Your task to perform on an android device: Open Yahoo.com Image 0: 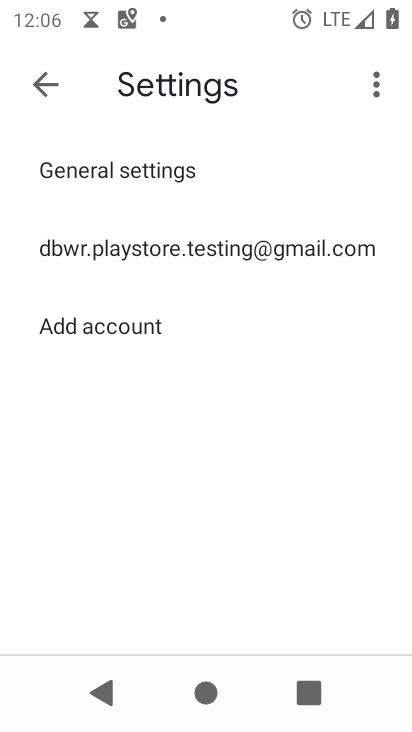
Step 0: press home button
Your task to perform on an android device: Open Yahoo.com Image 1: 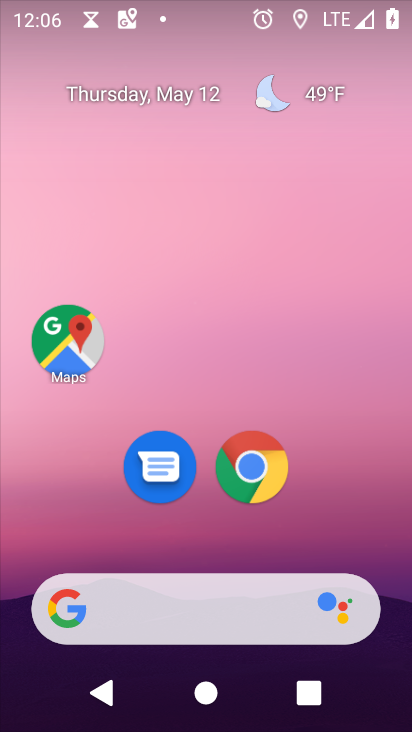
Step 1: click (247, 474)
Your task to perform on an android device: Open Yahoo.com Image 2: 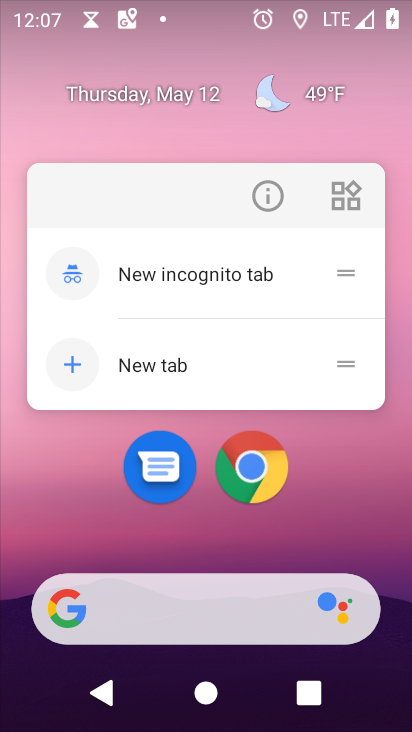
Step 2: click (246, 467)
Your task to perform on an android device: Open Yahoo.com Image 3: 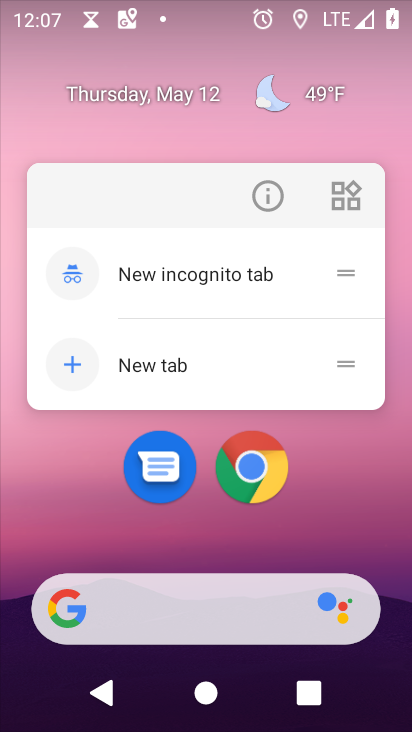
Step 3: click (266, 485)
Your task to perform on an android device: Open Yahoo.com Image 4: 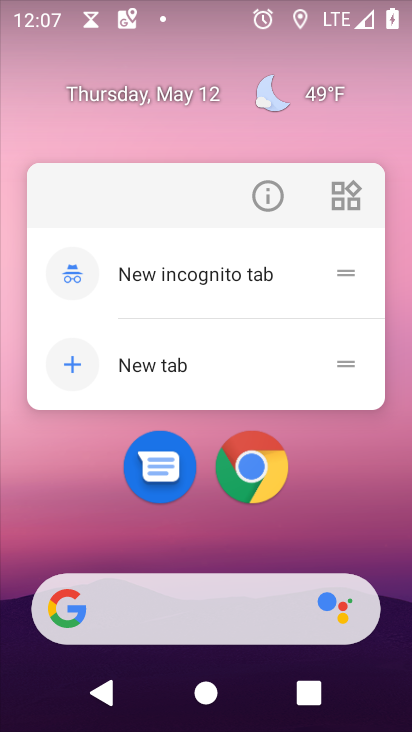
Step 4: click (262, 476)
Your task to perform on an android device: Open Yahoo.com Image 5: 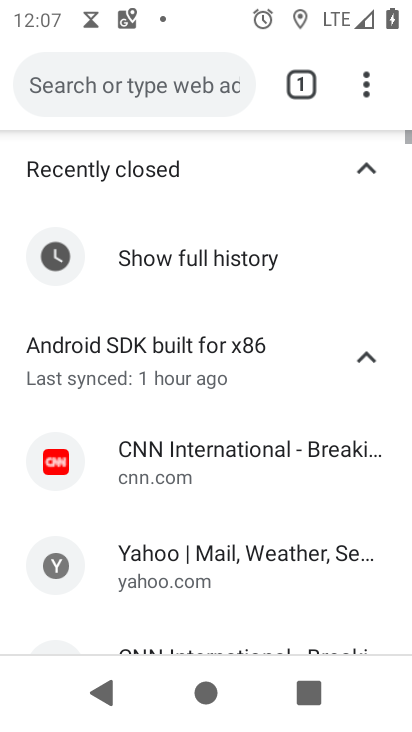
Step 5: drag from (364, 100) to (172, 162)
Your task to perform on an android device: Open Yahoo.com Image 6: 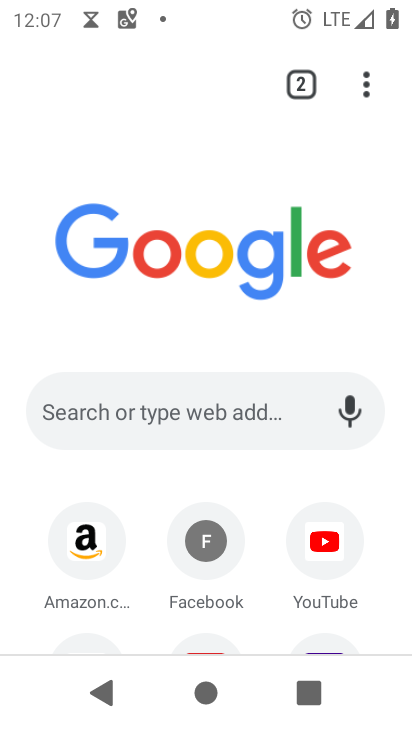
Step 6: drag from (248, 525) to (296, 267)
Your task to perform on an android device: Open Yahoo.com Image 7: 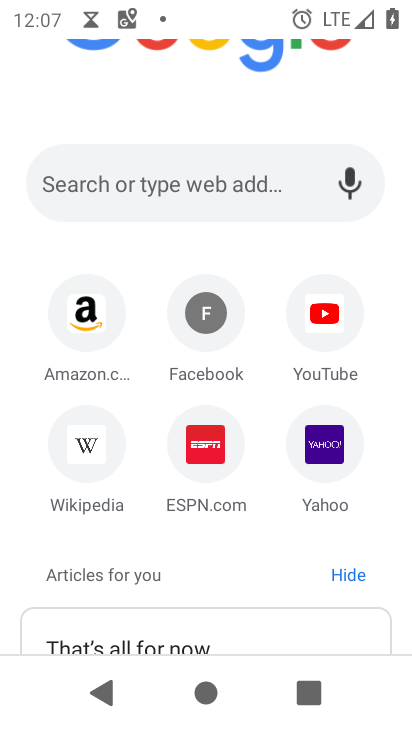
Step 7: click (324, 453)
Your task to perform on an android device: Open Yahoo.com Image 8: 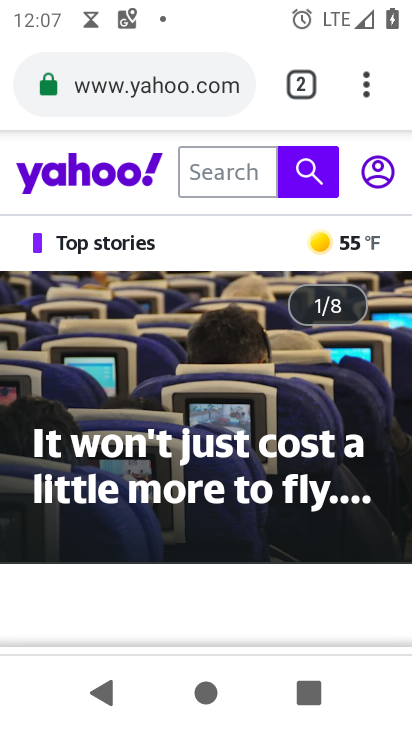
Step 8: task complete